Your task to perform on an android device: turn off translation in the chrome app Image 0: 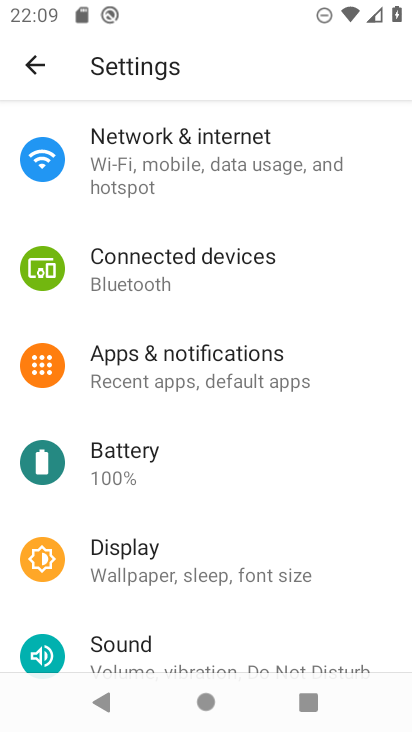
Step 0: press home button
Your task to perform on an android device: turn off translation in the chrome app Image 1: 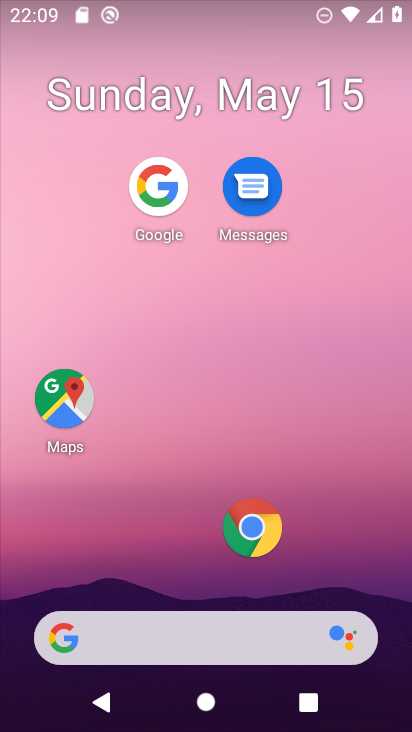
Step 1: click (258, 534)
Your task to perform on an android device: turn off translation in the chrome app Image 2: 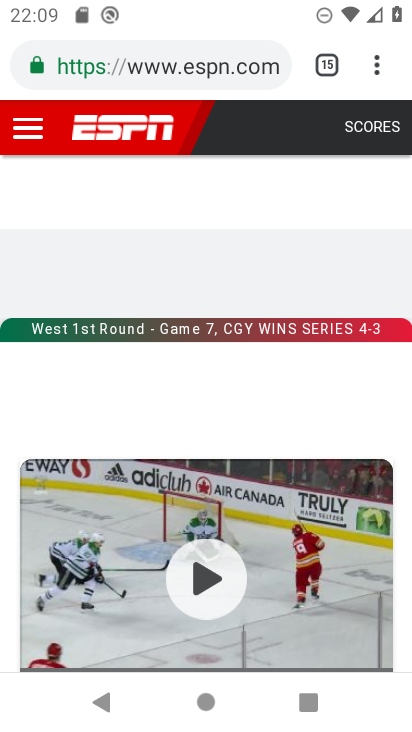
Step 2: drag from (374, 66) to (198, 590)
Your task to perform on an android device: turn off translation in the chrome app Image 3: 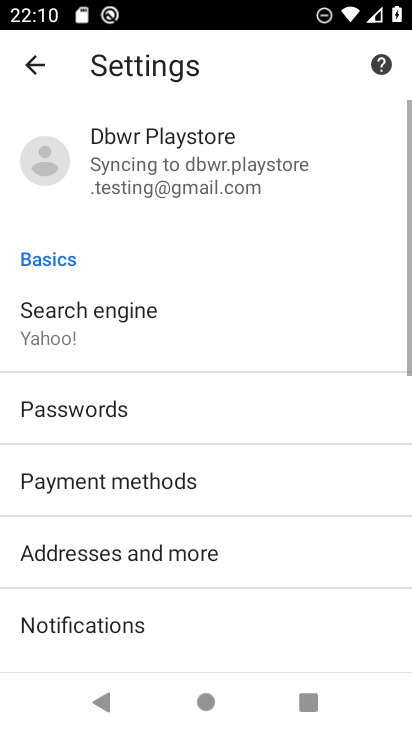
Step 3: drag from (201, 528) to (330, 93)
Your task to perform on an android device: turn off translation in the chrome app Image 4: 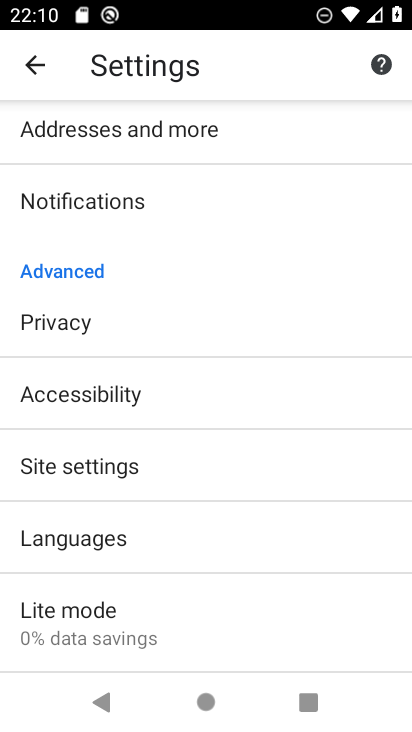
Step 4: click (138, 549)
Your task to perform on an android device: turn off translation in the chrome app Image 5: 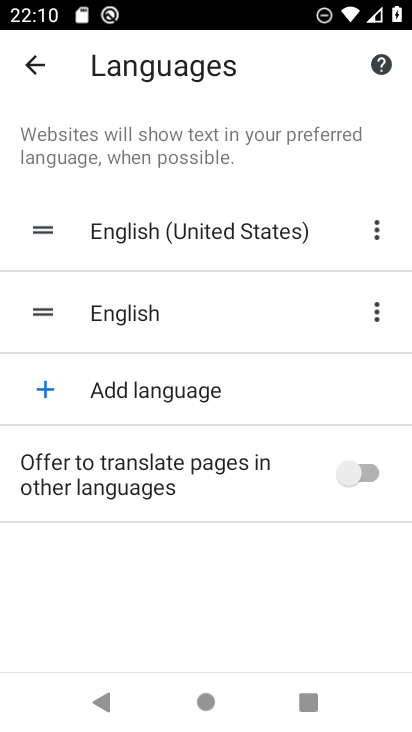
Step 5: task complete